Your task to perform on an android device: change text size in settings app Image 0: 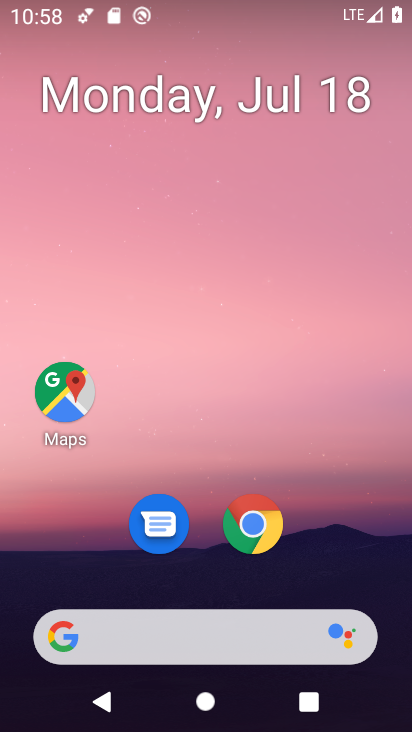
Step 0: drag from (281, 464) to (322, 21)
Your task to perform on an android device: change text size in settings app Image 1: 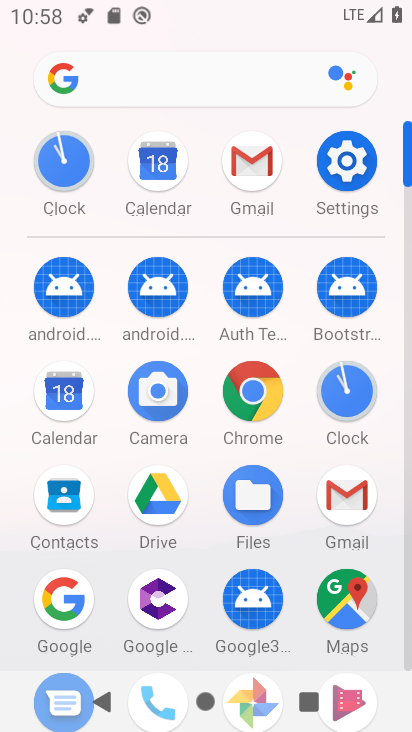
Step 1: click (333, 152)
Your task to perform on an android device: change text size in settings app Image 2: 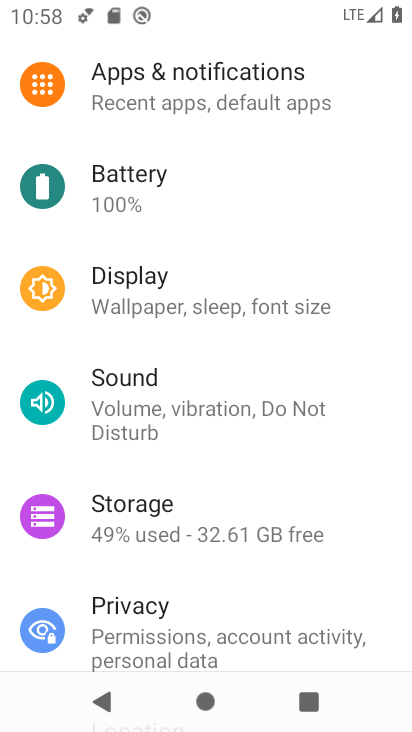
Step 2: click (184, 300)
Your task to perform on an android device: change text size in settings app Image 3: 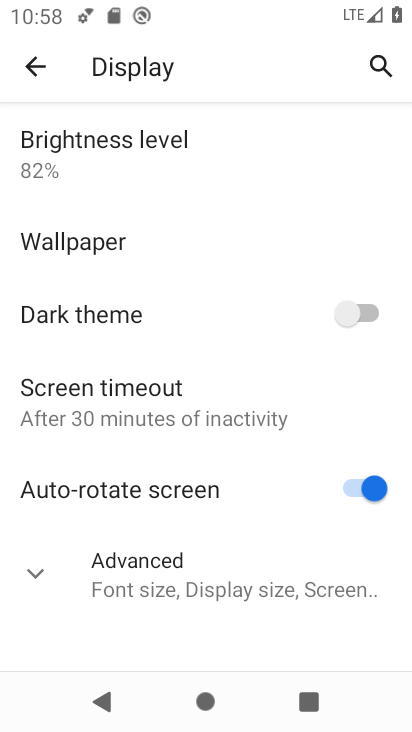
Step 3: click (31, 566)
Your task to perform on an android device: change text size in settings app Image 4: 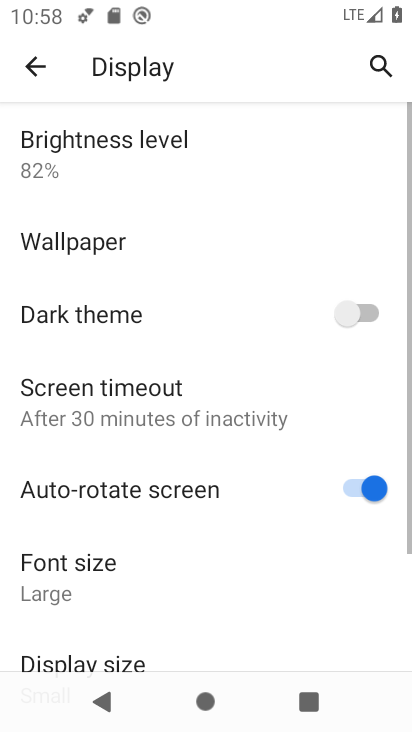
Step 4: drag from (224, 399) to (296, 112)
Your task to perform on an android device: change text size in settings app Image 5: 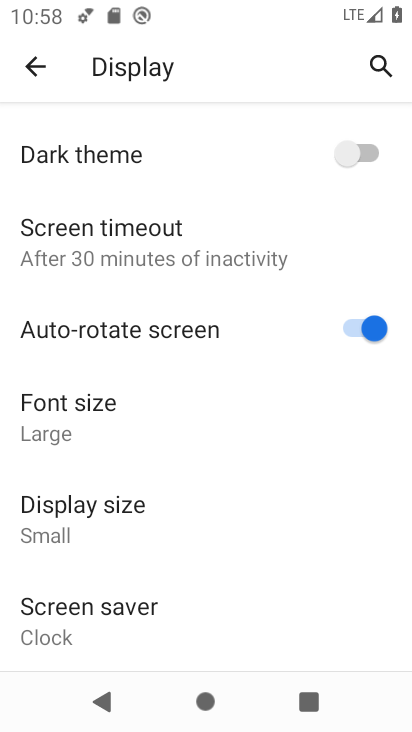
Step 5: click (112, 397)
Your task to perform on an android device: change text size in settings app Image 6: 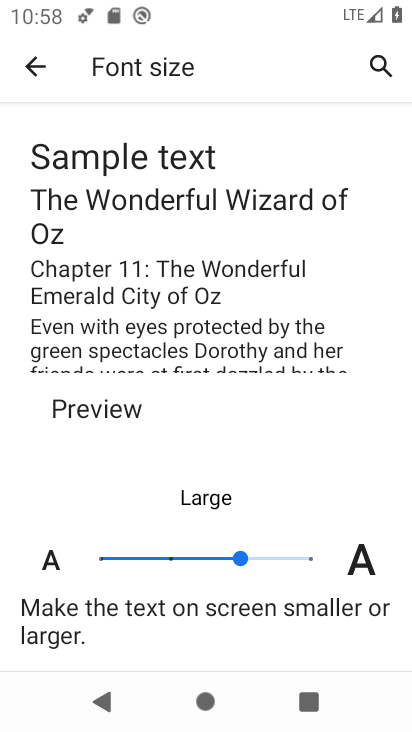
Step 6: click (165, 550)
Your task to perform on an android device: change text size in settings app Image 7: 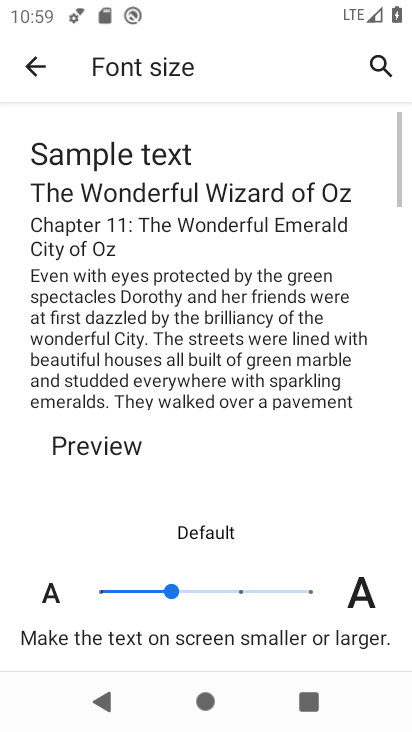
Step 7: click (31, 63)
Your task to perform on an android device: change text size in settings app Image 8: 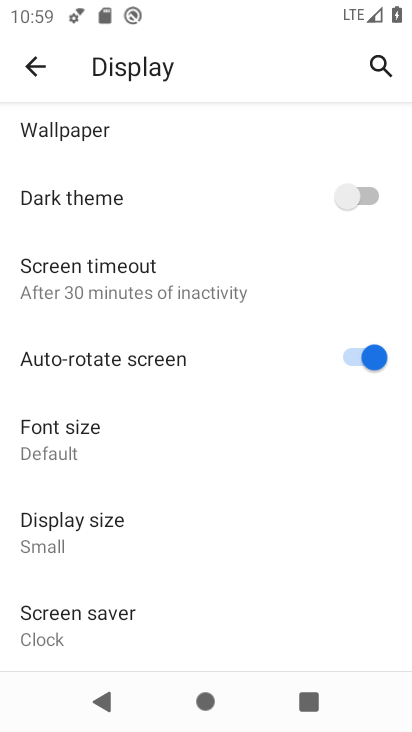
Step 8: task complete